Your task to perform on an android device: Go to Reddit.com Image 0: 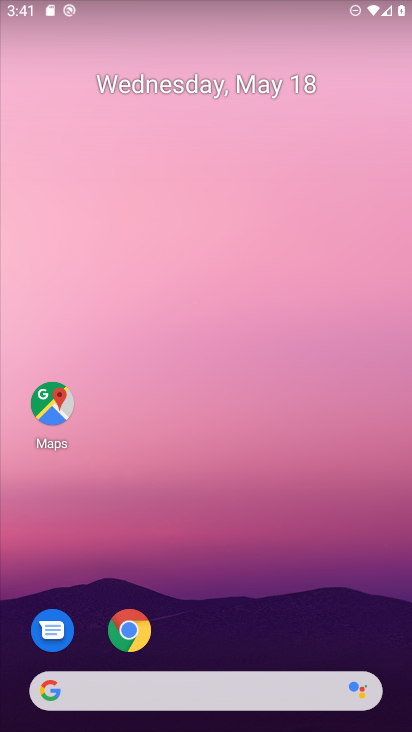
Step 0: drag from (215, 636) to (237, 20)
Your task to perform on an android device: Go to Reddit.com Image 1: 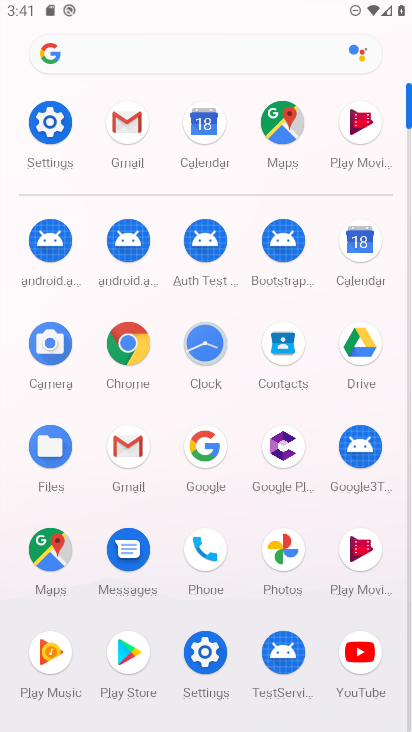
Step 1: click (126, 337)
Your task to perform on an android device: Go to Reddit.com Image 2: 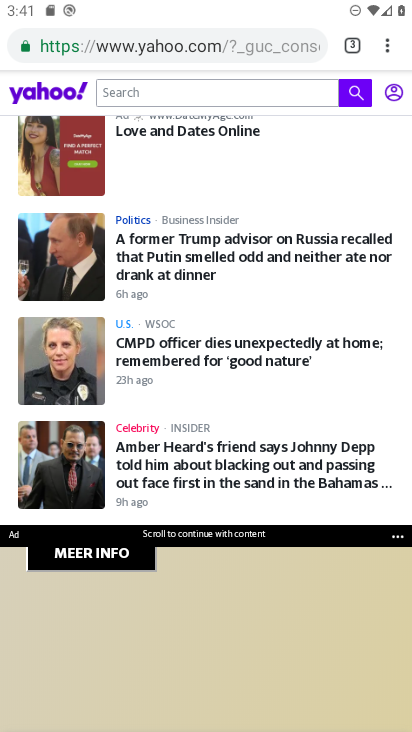
Step 2: click (355, 39)
Your task to perform on an android device: Go to Reddit.com Image 3: 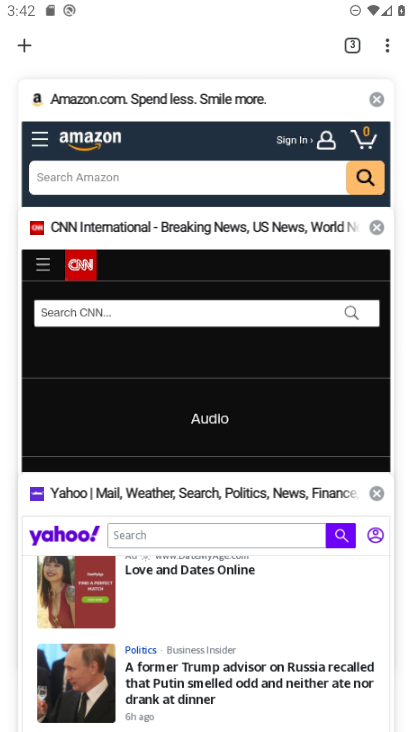
Step 3: click (378, 95)
Your task to perform on an android device: Go to Reddit.com Image 4: 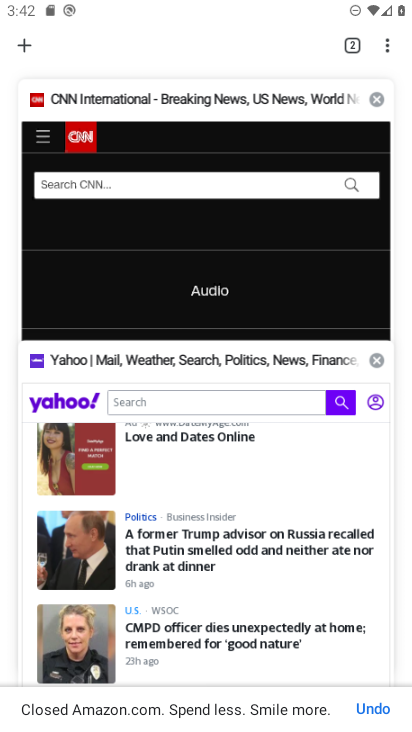
Step 4: click (374, 99)
Your task to perform on an android device: Go to Reddit.com Image 5: 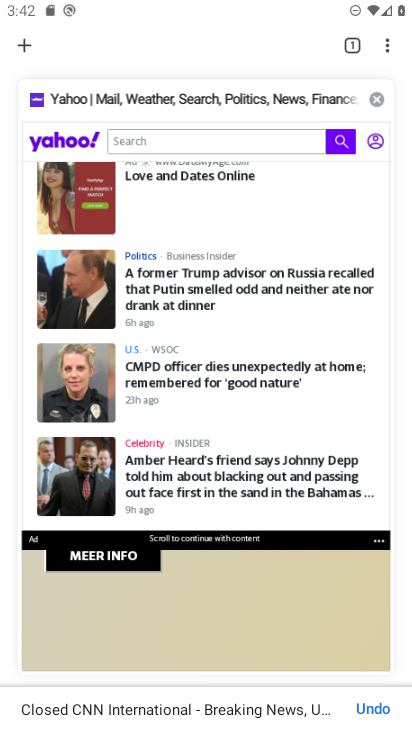
Step 5: click (374, 99)
Your task to perform on an android device: Go to Reddit.com Image 6: 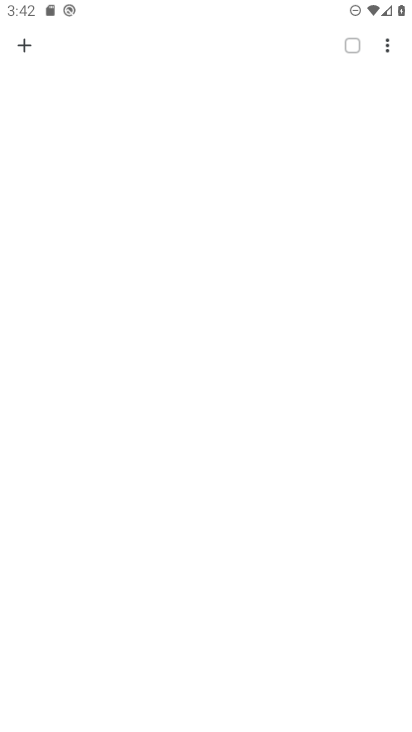
Step 6: click (28, 45)
Your task to perform on an android device: Go to Reddit.com Image 7: 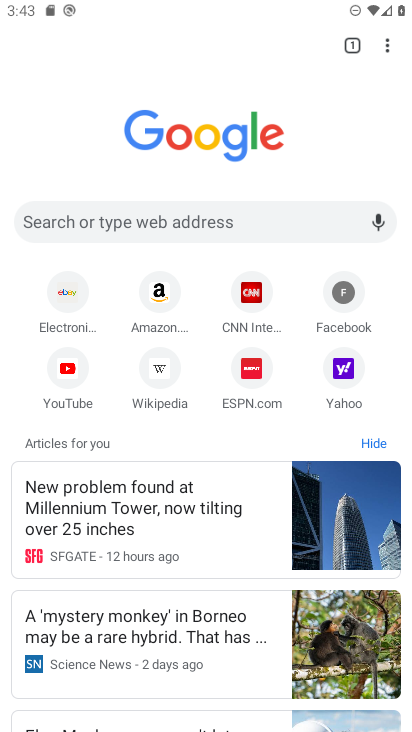
Step 7: click (131, 224)
Your task to perform on an android device: Go to Reddit.com Image 8: 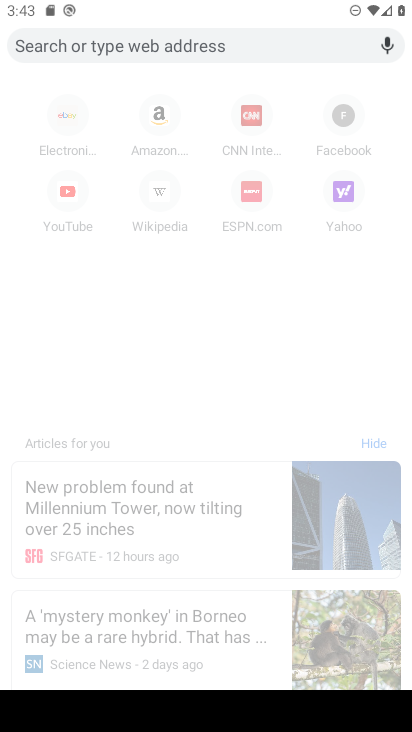
Step 8: type "reddit"
Your task to perform on an android device: Go to Reddit.com Image 9: 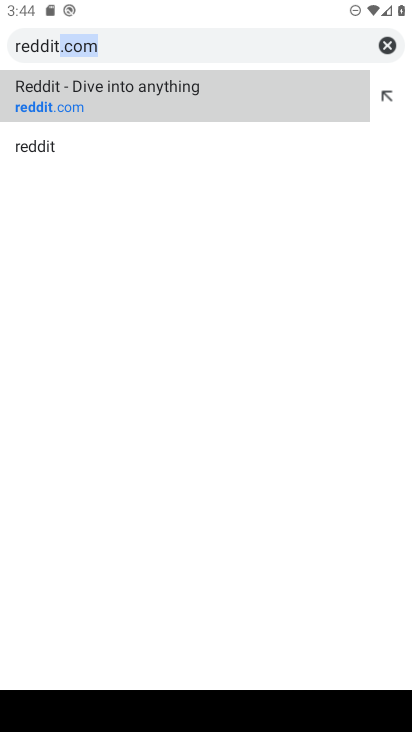
Step 9: click (85, 105)
Your task to perform on an android device: Go to Reddit.com Image 10: 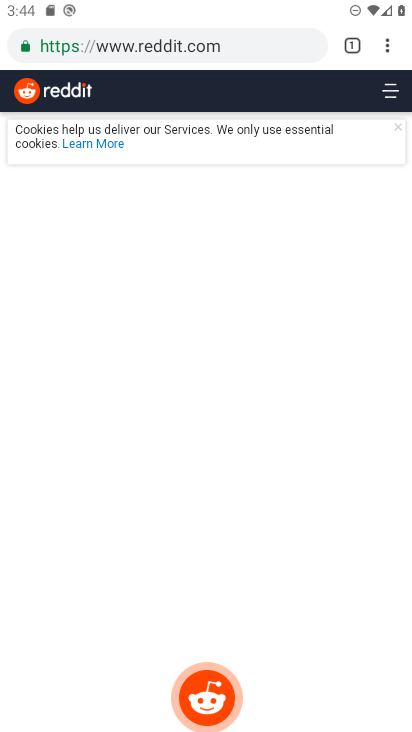
Step 10: task complete